Your task to perform on an android device: turn on showing notifications on the lock screen Image 0: 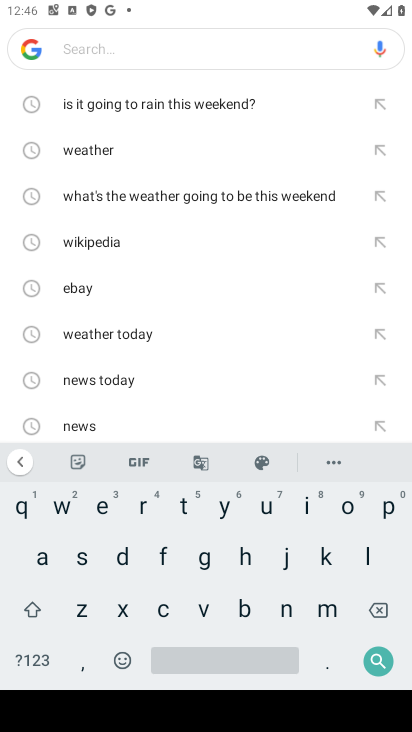
Step 0: press home button
Your task to perform on an android device: turn on showing notifications on the lock screen Image 1: 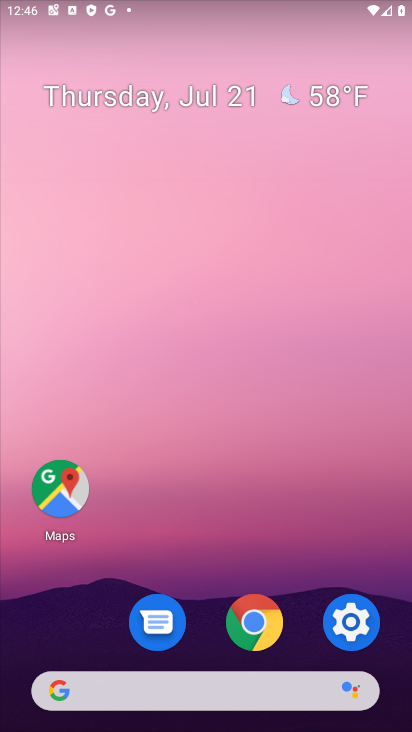
Step 1: click (356, 618)
Your task to perform on an android device: turn on showing notifications on the lock screen Image 2: 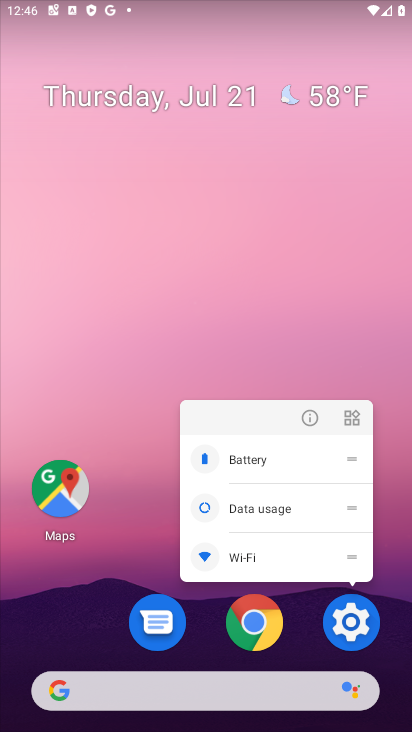
Step 2: click (347, 615)
Your task to perform on an android device: turn on showing notifications on the lock screen Image 3: 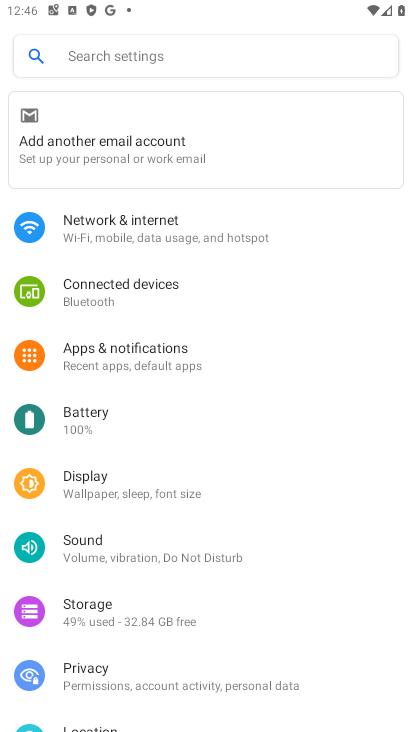
Step 3: click (110, 56)
Your task to perform on an android device: turn on showing notifications on the lock screen Image 4: 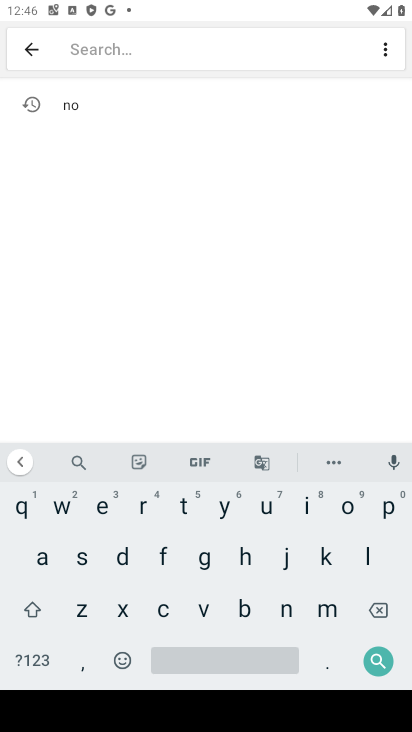
Step 4: click (99, 508)
Your task to perform on an android device: turn on showing notifications on the lock screen Image 5: 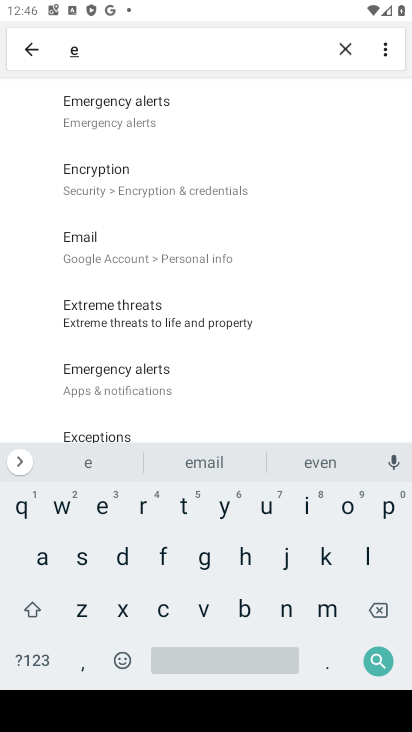
Step 5: click (340, 46)
Your task to perform on an android device: turn on showing notifications on the lock screen Image 6: 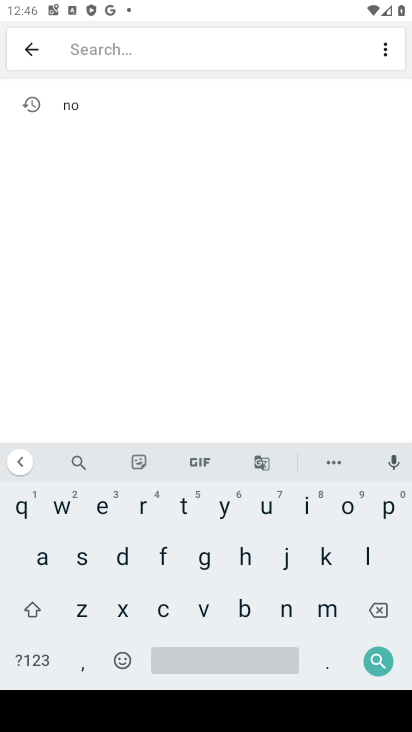
Step 6: click (288, 606)
Your task to perform on an android device: turn on showing notifications on the lock screen Image 7: 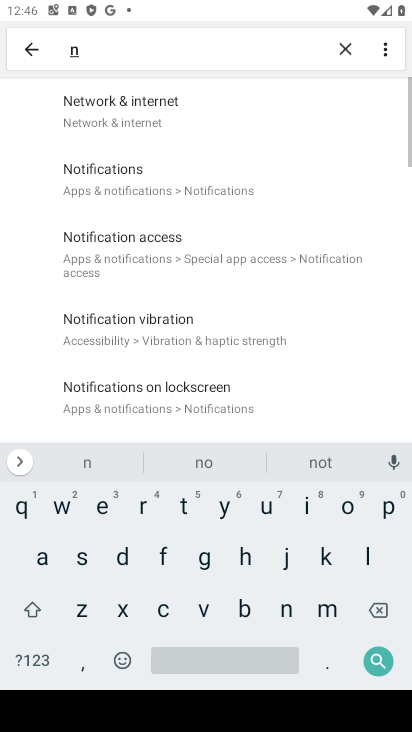
Step 7: click (345, 509)
Your task to perform on an android device: turn on showing notifications on the lock screen Image 8: 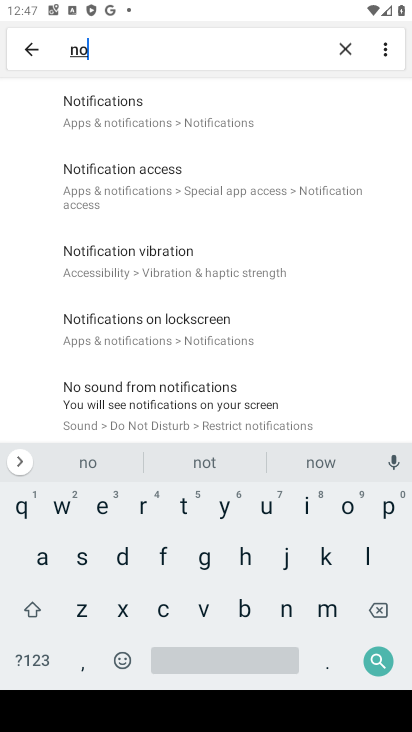
Step 8: click (130, 102)
Your task to perform on an android device: turn on showing notifications on the lock screen Image 9: 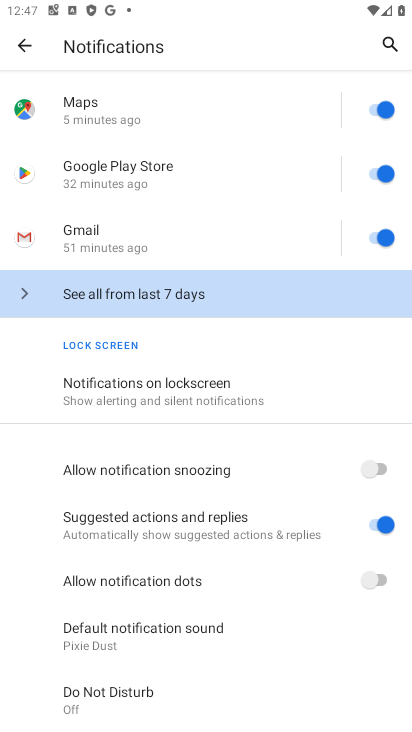
Step 9: click (127, 392)
Your task to perform on an android device: turn on showing notifications on the lock screen Image 10: 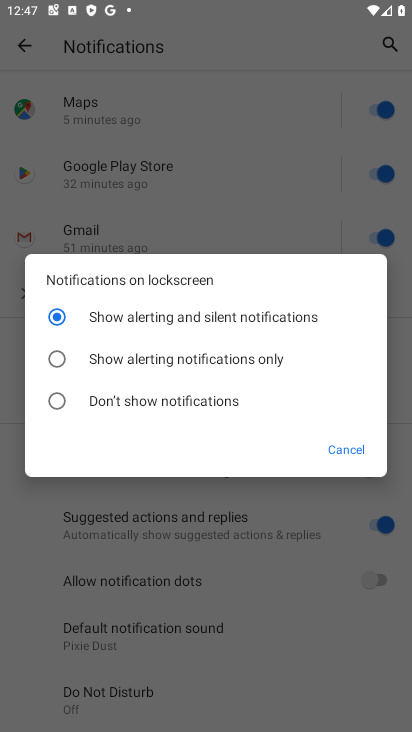
Step 10: task complete